Your task to perform on an android device: Check the weather Image 0: 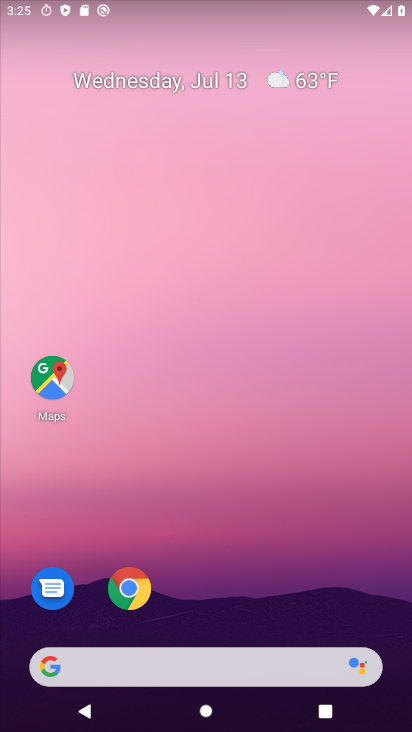
Step 0: drag from (243, 486) to (344, 0)
Your task to perform on an android device: Check the weather Image 1: 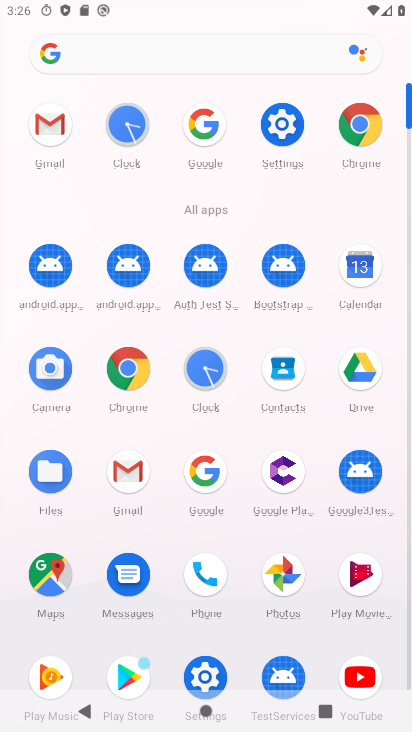
Step 1: click (199, 472)
Your task to perform on an android device: Check the weather Image 2: 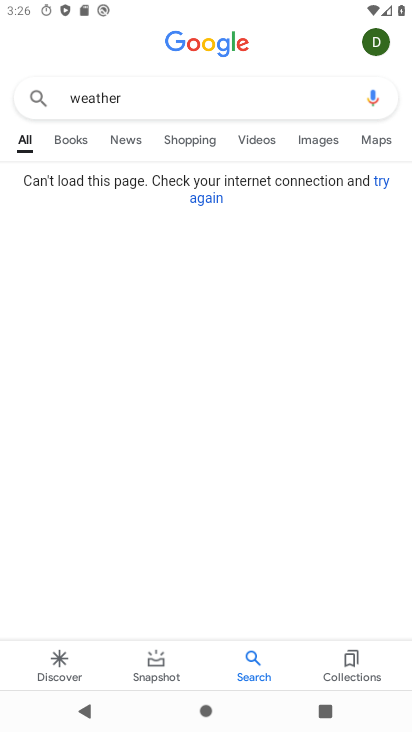
Step 2: click (382, 185)
Your task to perform on an android device: Check the weather Image 3: 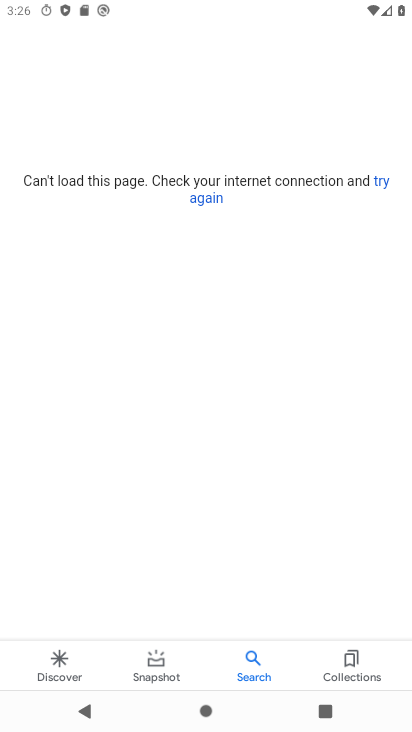
Step 3: click (226, 200)
Your task to perform on an android device: Check the weather Image 4: 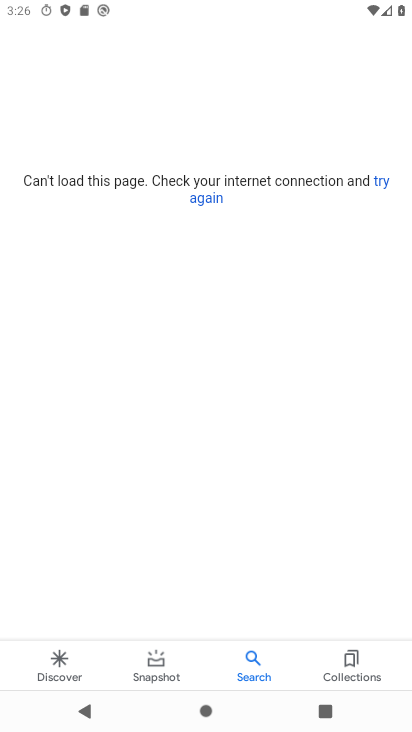
Step 4: click (222, 199)
Your task to perform on an android device: Check the weather Image 5: 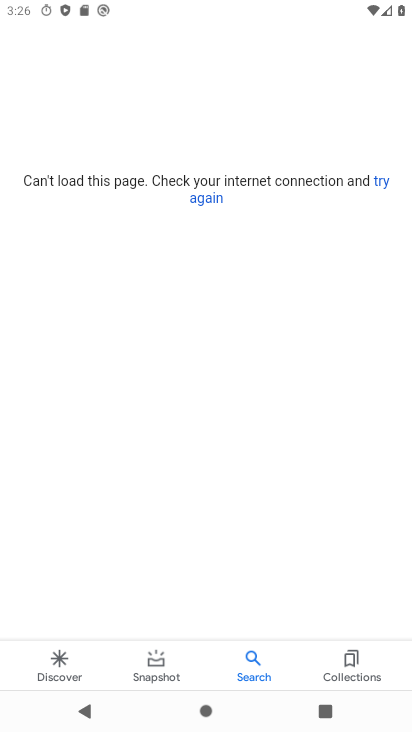
Step 5: task complete